Your task to perform on an android device: When is my next appointment? Image 0: 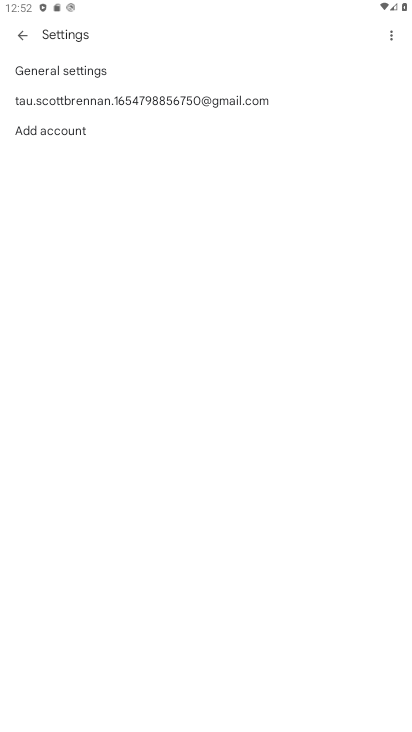
Step 0: task complete